Your task to perform on an android device: set an alarm Image 0: 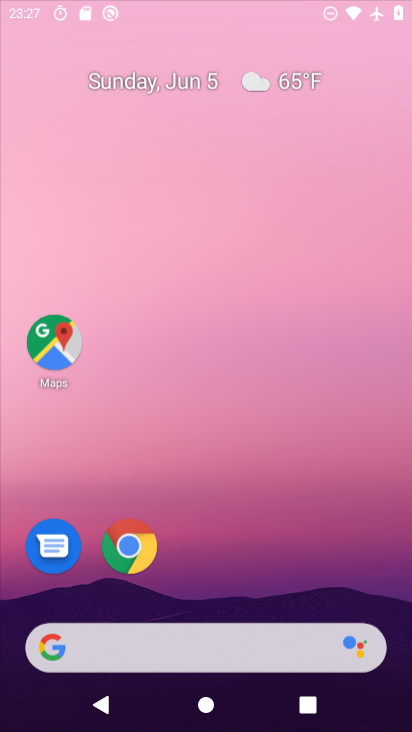
Step 0: click (306, 120)
Your task to perform on an android device: set an alarm Image 1: 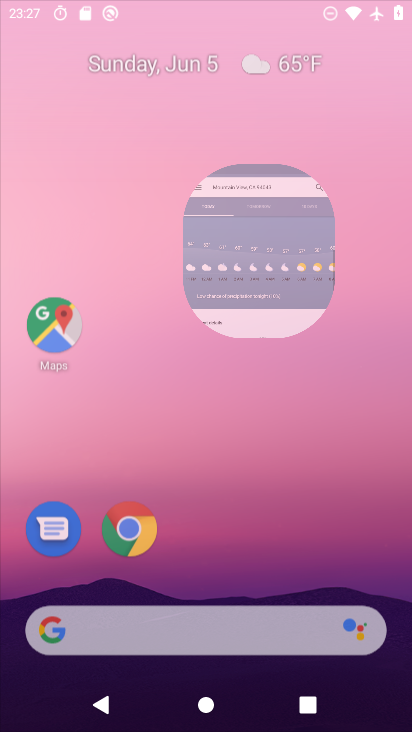
Step 1: drag from (167, 578) to (255, 59)
Your task to perform on an android device: set an alarm Image 2: 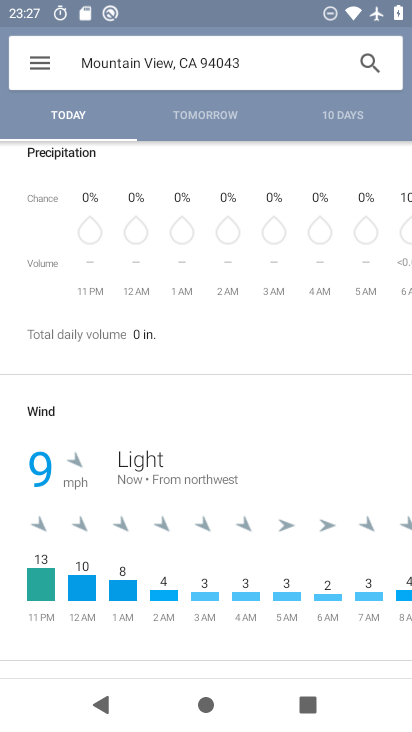
Step 2: press home button
Your task to perform on an android device: set an alarm Image 3: 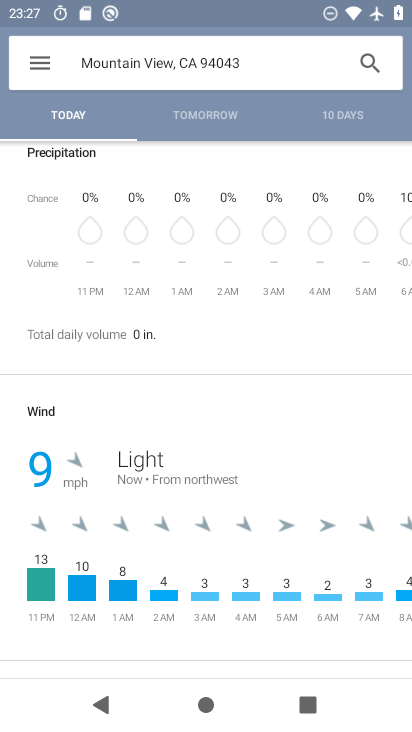
Step 3: drag from (163, 470) to (301, 125)
Your task to perform on an android device: set an alarm Image 4: 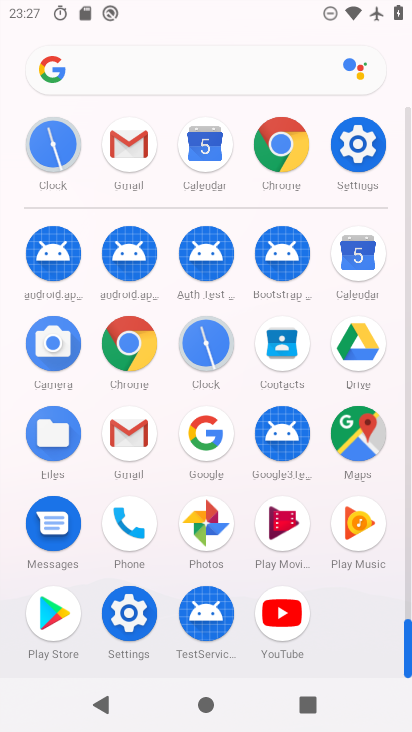
Step 4: click (211, 332)
Your task to perform on an android device: set an alarm Image 5: 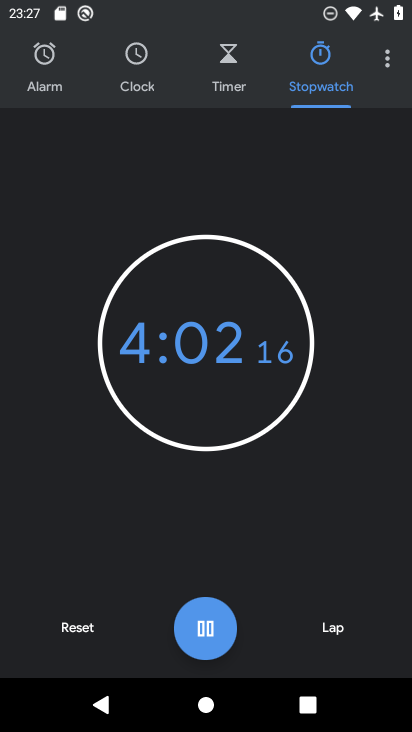
Step 5: click (23, 57)
Your task to perform on an android device: set an alarm Image 6: 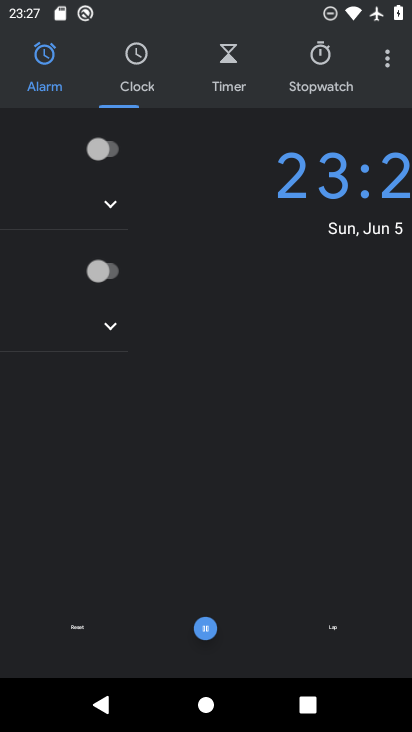
Step 6: click (37, 61)
Your task to perform on an android device: set an alarm Image 7: 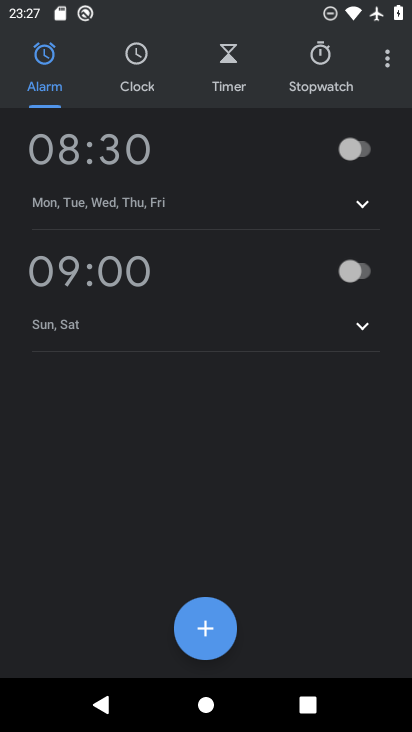
Step 7: drag from (228, 438) to (256, 202)
Your task to perform on an android device: set an alarm Image 8: 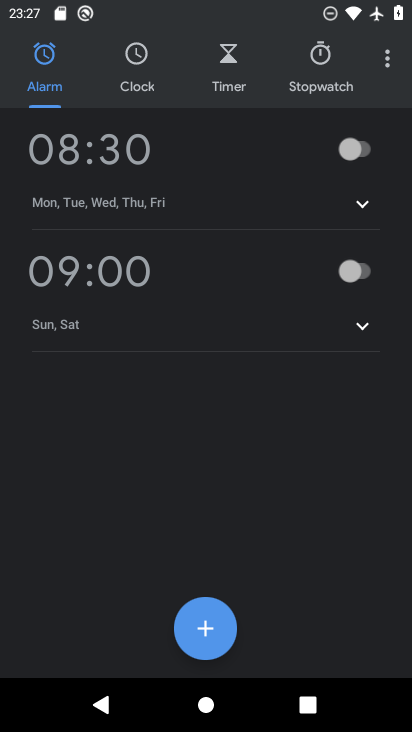
Step 8: click (343, 141)
Your task to perform on an android device: set an alarm Image 9: 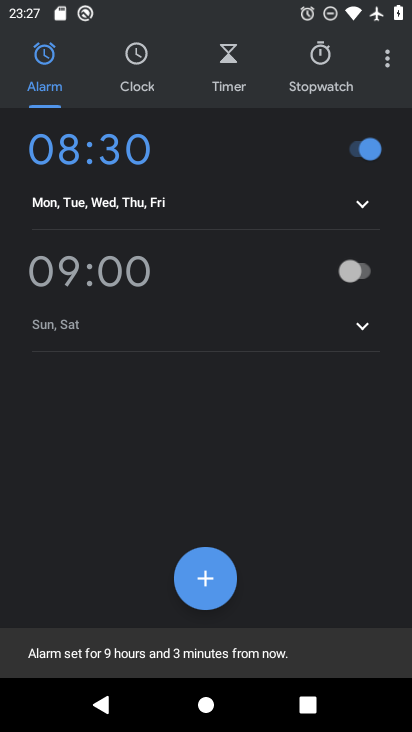
Step 9: task complete